Your task to perform on an android device: Search for Mexican restaurants on Maps Image 0: 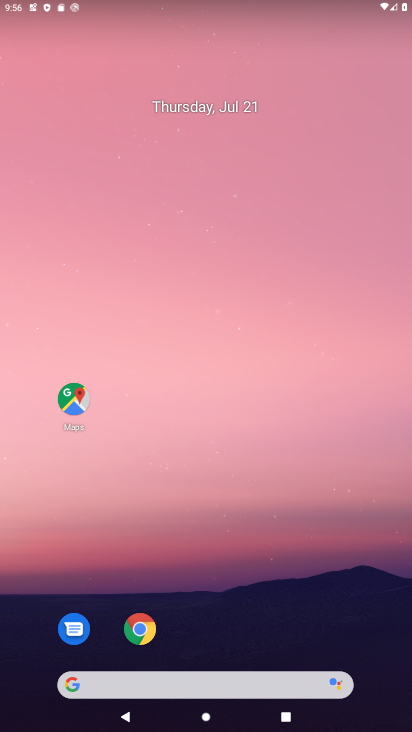
Step 0: click (65, 396)
Your task to perform on an android device: Search for Mexican restaurants on Maps Image 1: 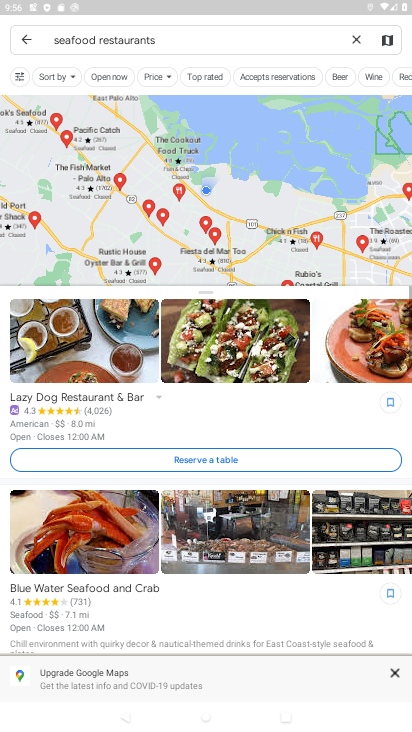
Step 1: click (354, 40)
Your task to perform on an android device: Search for Mexican restaurants on Maps Image 2: 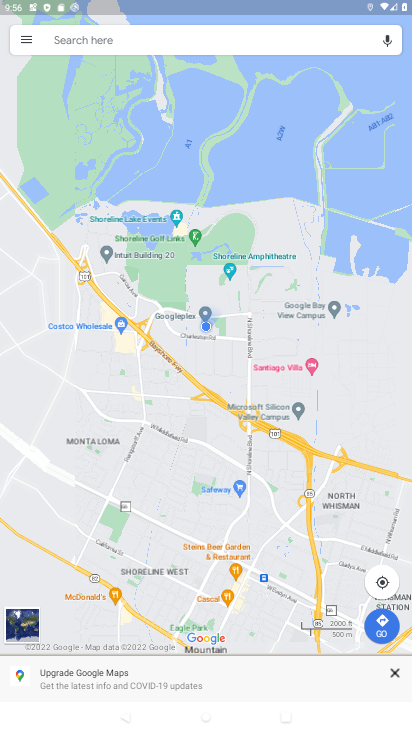
Step 2: click (290, 32)
Your task to perform on an android device: Search for Mexican restaurants on Maps Image 3: 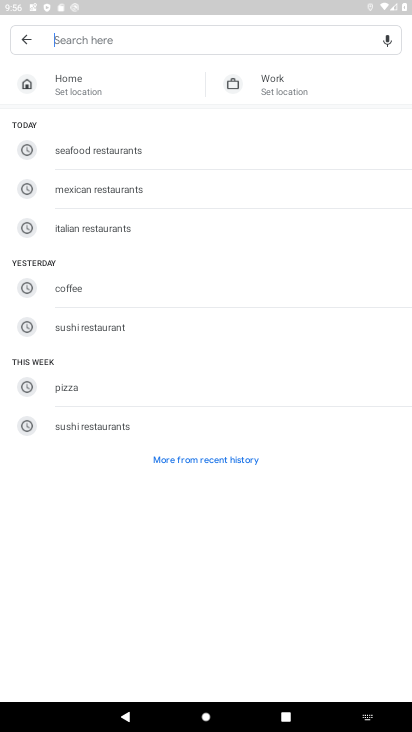
Step 3: click (168, 200)
Your task to perform on an android device: Search for Mexican restaurants on Maps Image 4: 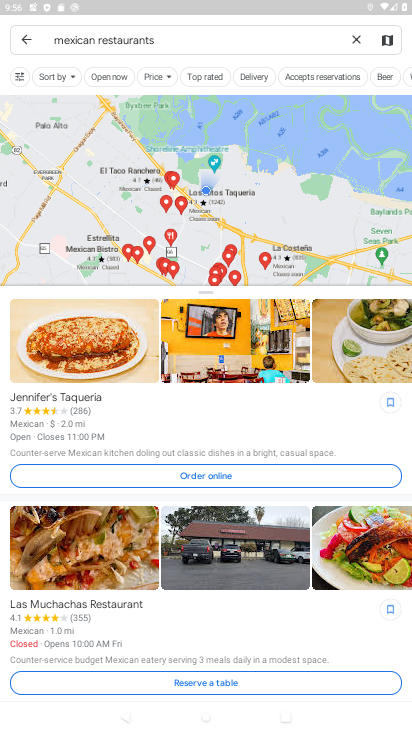
Step 4: task complete